Your task to perform on an android device: Toggle the flashlight Image 0: 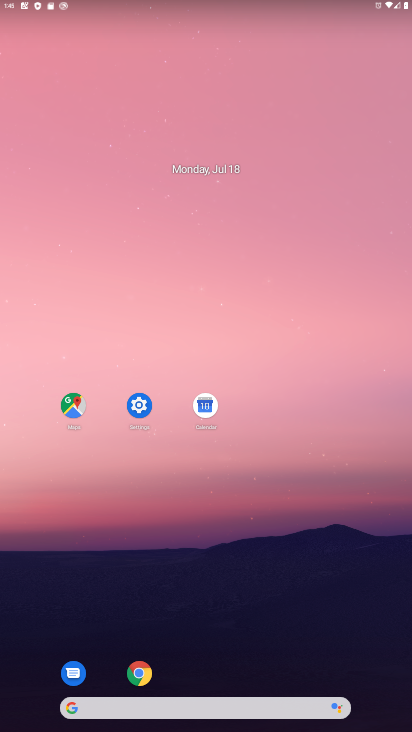
Step 0: click (135, 398)
Your task to perform on an android device: Toggle the flashlight Image 1: 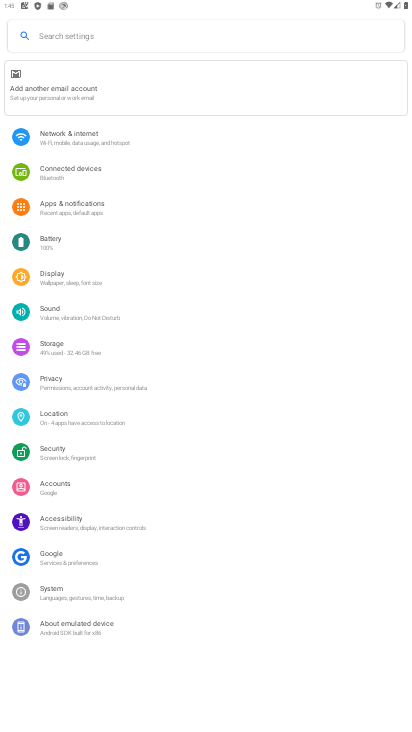
Step 1: click (60, 267)
Your task to perform on an android device: Toggle the flashlight Image 2: 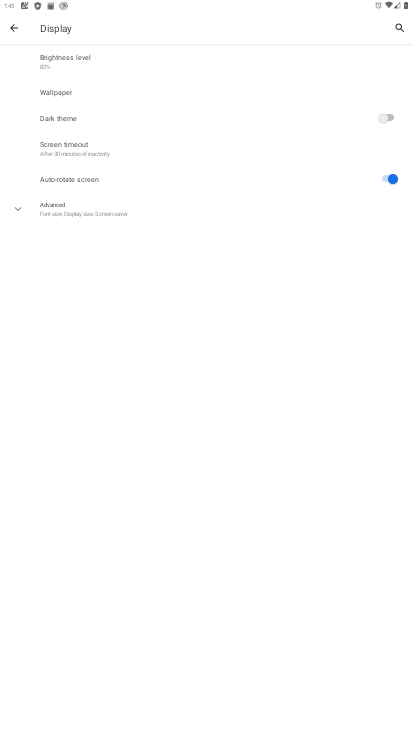
Step 2: click (20, 207)
Your task to perform on an android device: Toggle the flashlight Image 3: 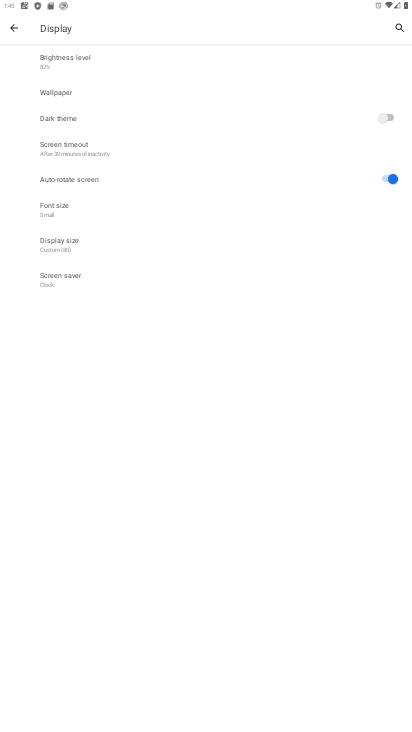
Step 3: task complete